Your task to perform on an android device: Go to Amazon Image 0: 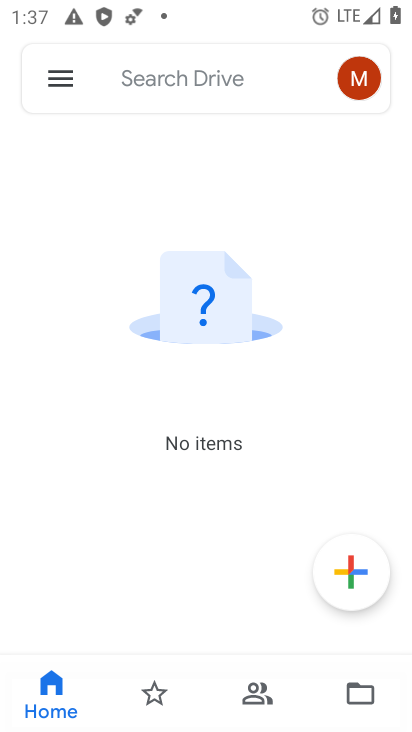
Step 0: press home button
Your task to perform on an android device: Go to Amazon Image 1: 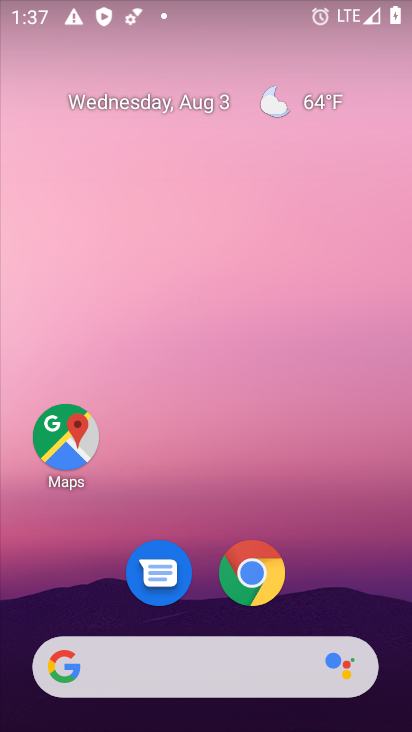
Step 1: drag from (212, 618) to (226, 245)
Your task to perform on an android device: Go to Amazon Image 2: 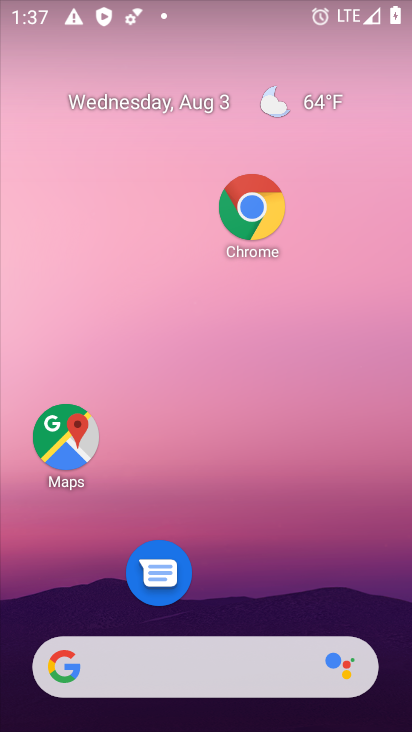
Step 2: drag from (168, 657) to (226, 190)
Your task to perform on an android device: Go to Amazon Image 3: 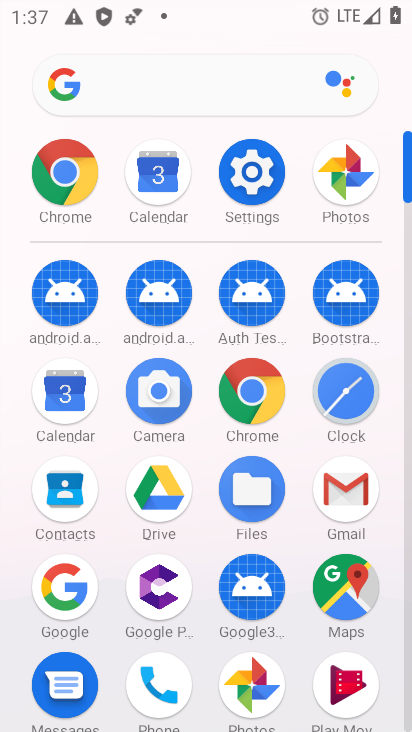
Step 3: drag from (217, 518) to (247, 307)
Your task to perform on an android device: Go to Amazon Image 4: 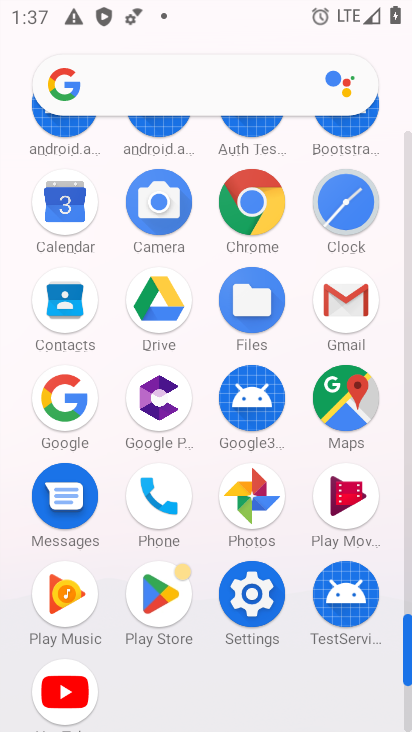
Step 4: click (251, 237)
Your task to perform on an android device: Go to Amazon Image 5: 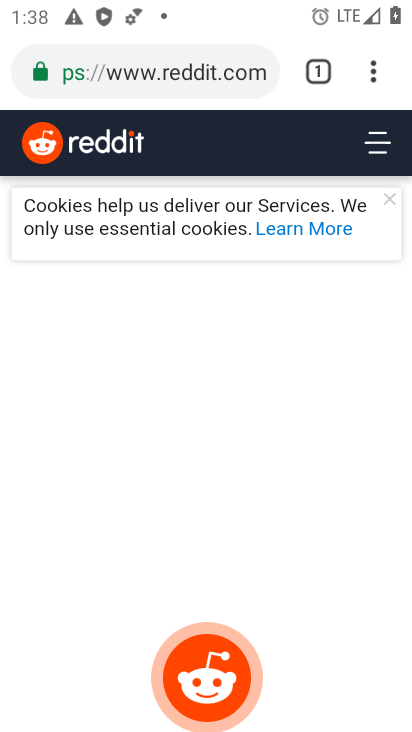
Step 5: click (181, 86)
Your task to perform on an android device: Go to Amazon Image 6: 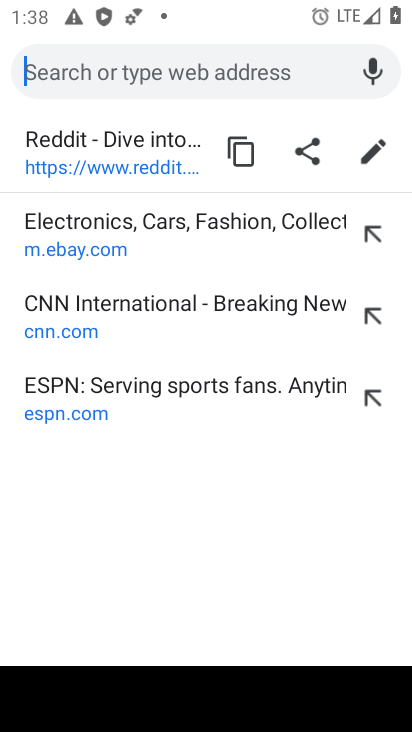
Step 6: press back button
Your task to perform on an android device: Go to Amazon Image 7: 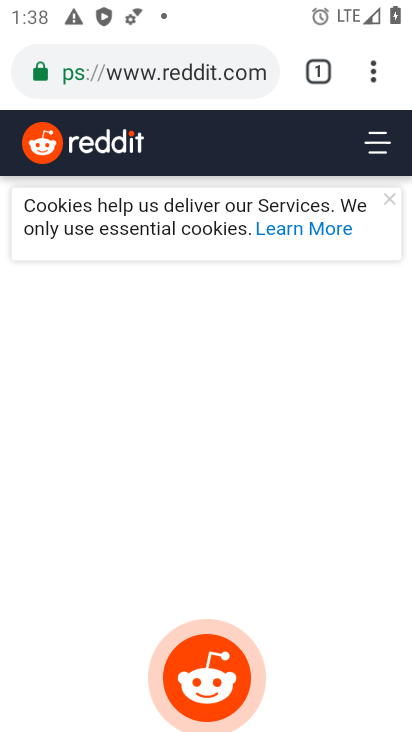
Step 7: drag from (236, 83) to (154, 335)
Your task to perform on an android device: Go to Amazon Image 8: 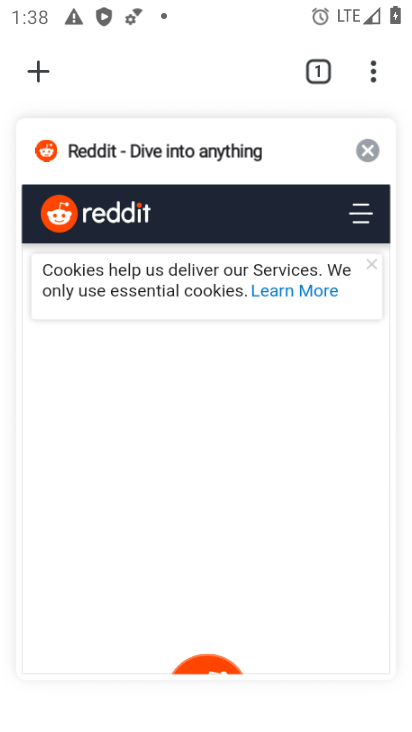
Step 8: click (25, 60)
Your task to perform on an android device: Go to Amazon Image 9: 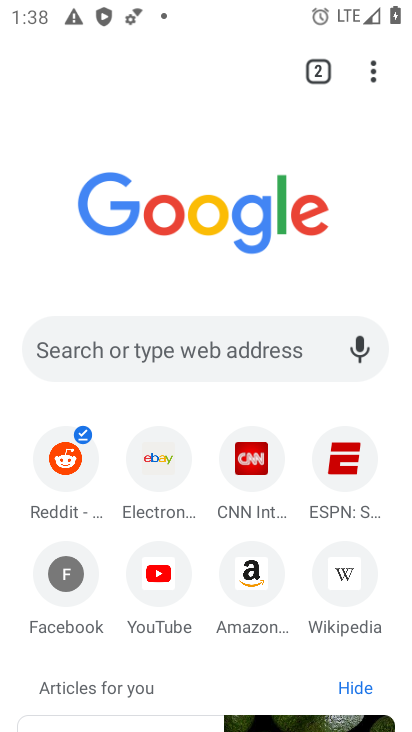
Step 9: click (256, 586)
Your task to perform on an android device: Go to Amazon Image 10: 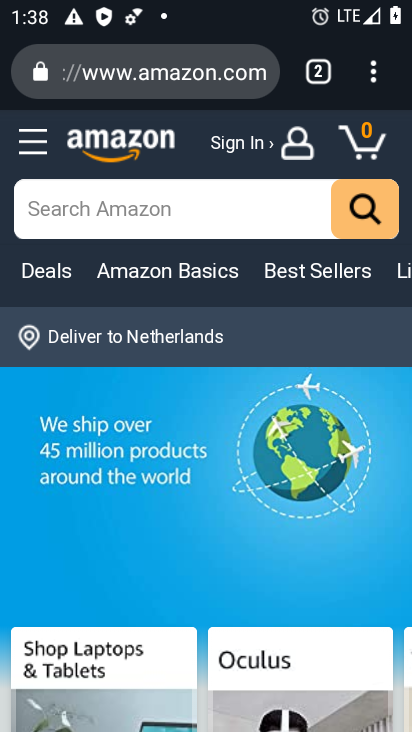
Step 10: task complete